Your task to perform on an android device: add a contact in the contacts app Image 0: 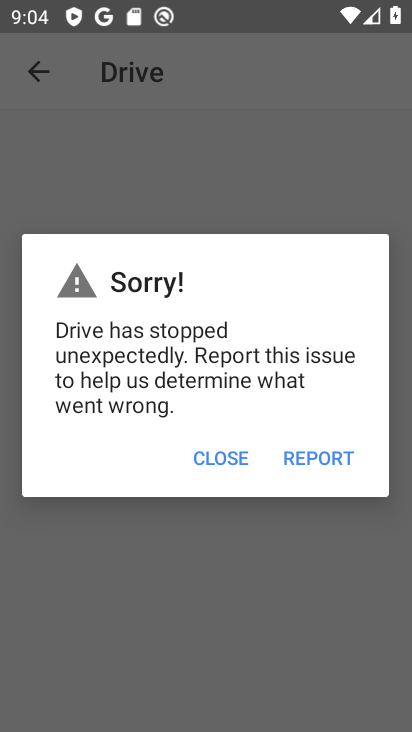
Step 0: press home button
Your task to perform on an android device: add a contact in the contacts app Image 1: 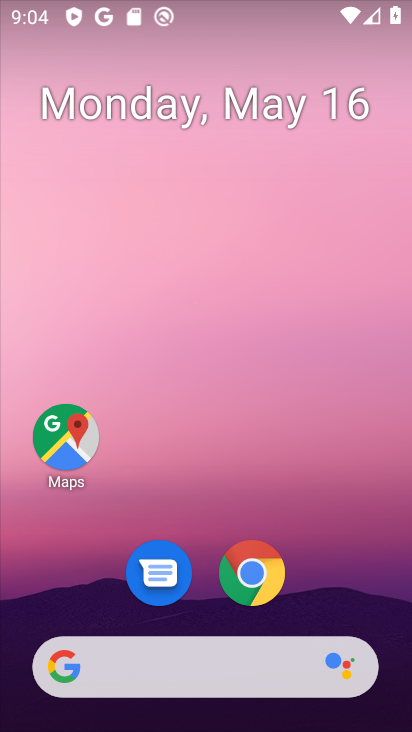
Step 1: drag from (321, 589) to (324, 173)
Your task to perform on an android device: add a contact in the contacts app Image 2: 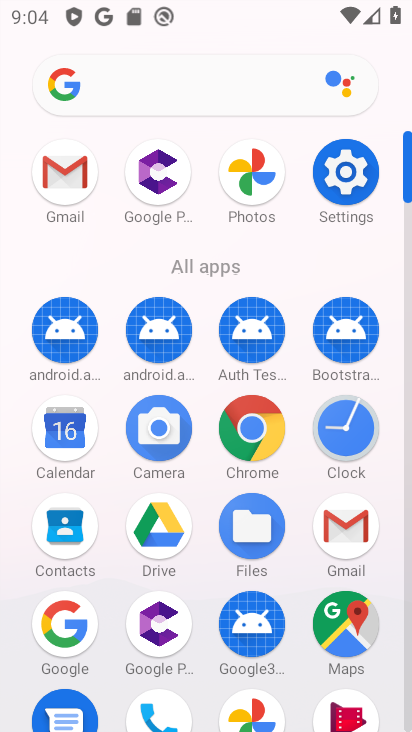
Step 2: drag from (291, 675) to (282, 597)
Your task to perform on an android device: add a contact in the contacts app Image 3: 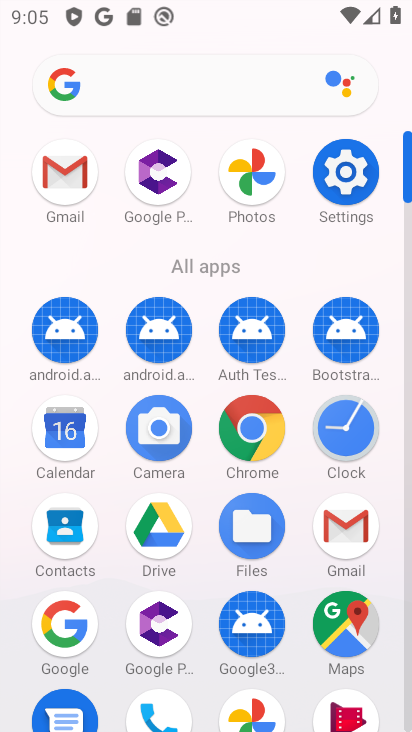
Step 3: drag from (293, 560) to (397, 234)
Your task to perform on an android device: add a contact in the contacts app Image 4: 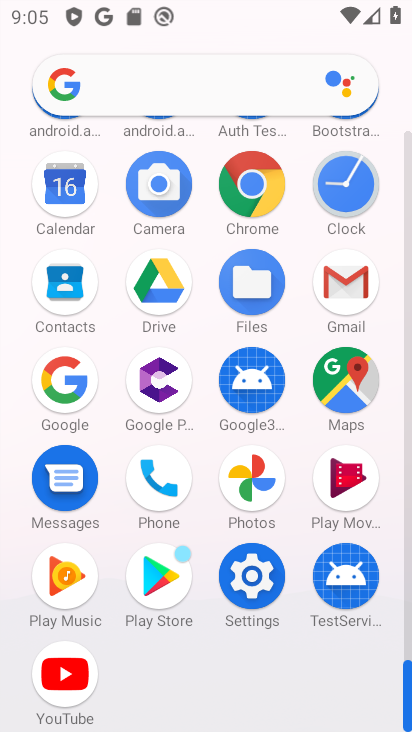
Step 4: click (50, 285)
Your task to perform on an android device: add a contact in the contacts app Image 5: 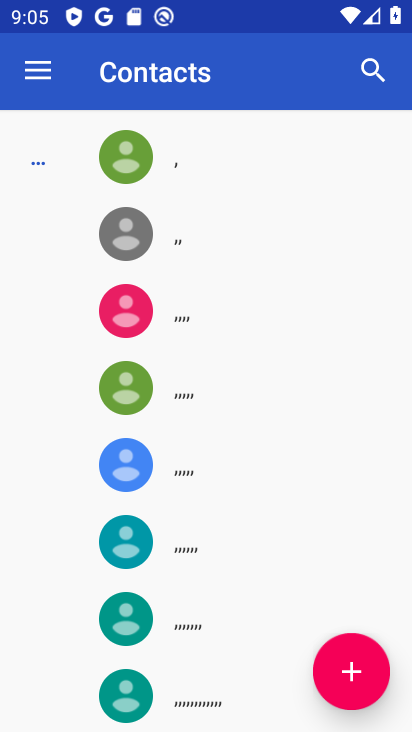
Step 5: click (358, 685)
Your task to perform on an android device: add a contact in the contacts app Image 6: 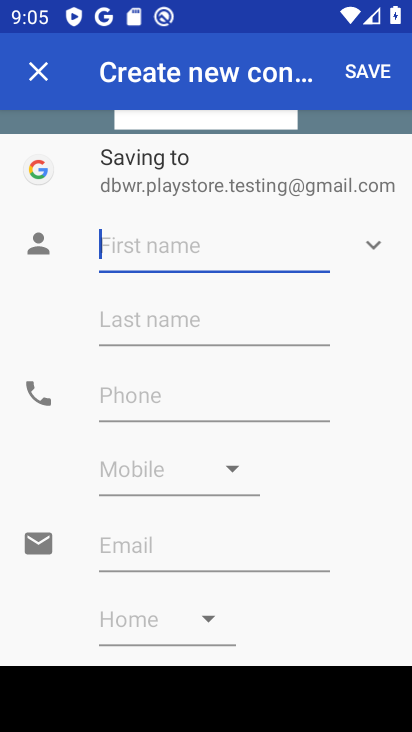
Step 6: click (223, 247)
Your task to perform on an android device: add a contact in the contacts app Image 7: 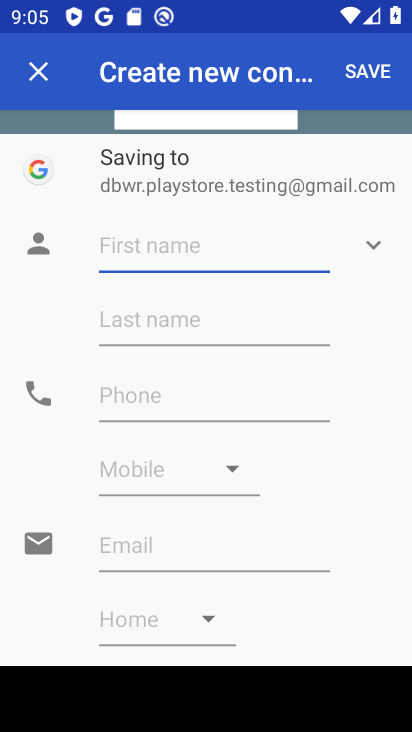
Step 7: type "desh"
Your task to perform on an android device: add a contact in the contacts app Image 8: 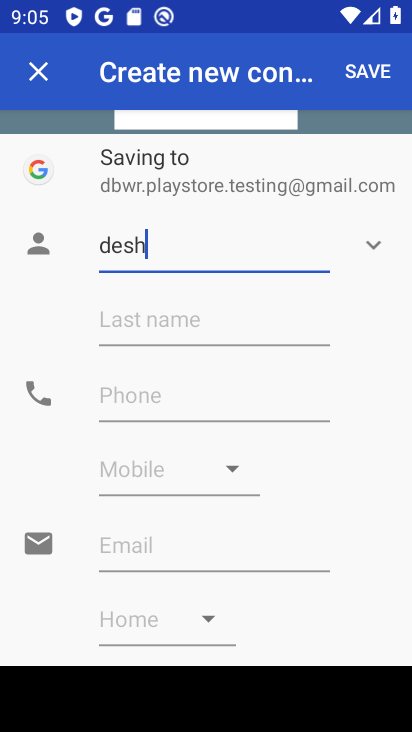
Step 8: click (379, 70)
Your task to perform on an android device: add a contact in the contacts app Image 9: 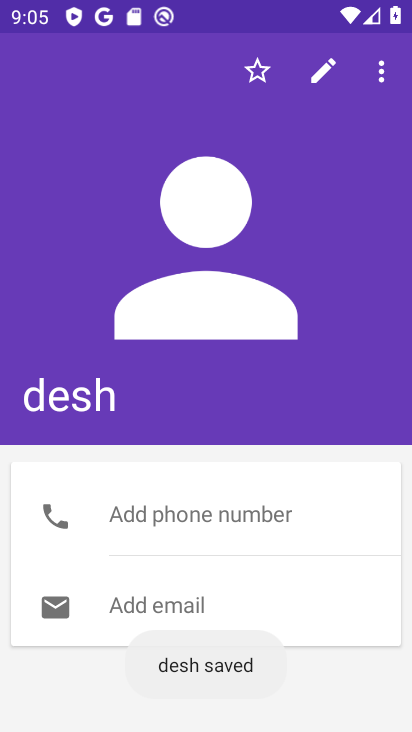
Step 9: task complete